Your task to perform on an android device: stop showing notifications on the lock screen Image 0: 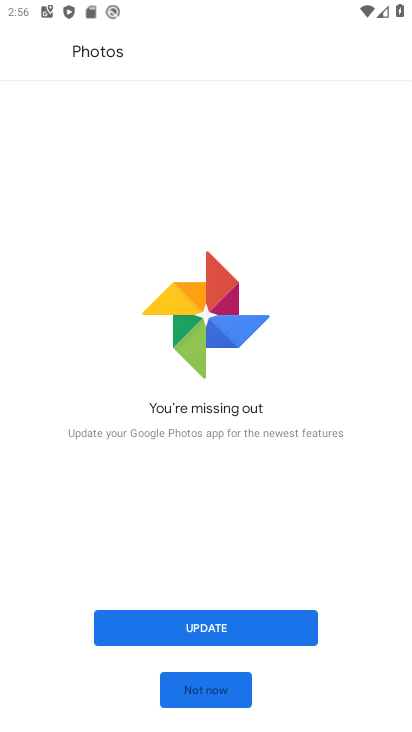
Step 0: press home button
Your task to perform on an android device: stop showing notifications on the lock screen Image 1: 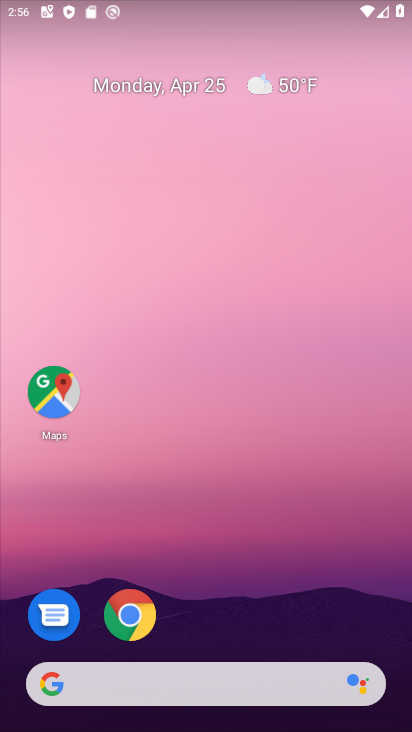
Step 1: drag from (218, 722) to (220, 88)
Your task to perform on an android device: stop showing notifications on the lock screen Image 2: 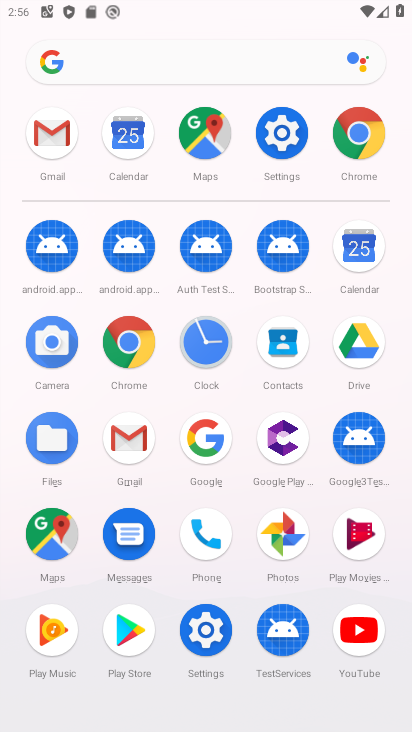
Step 2: click (282, 136)
Your task to perform on an android device: stop showing notifications on the lock screen Image 3: 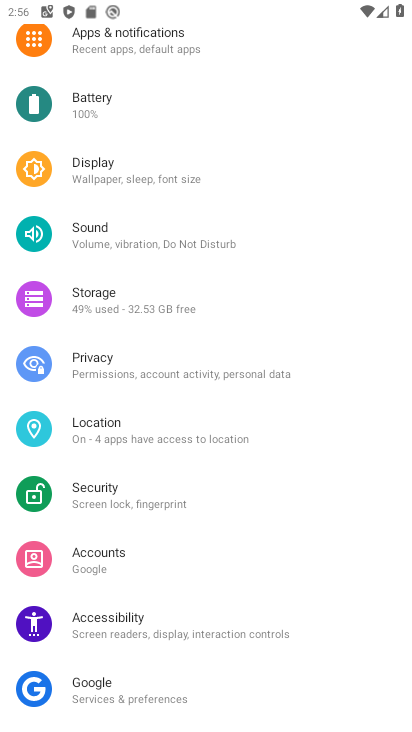
Step 3: click (140, 41)
Your task to perform on an android device: stop showing notifications on the lock screen Image 4: 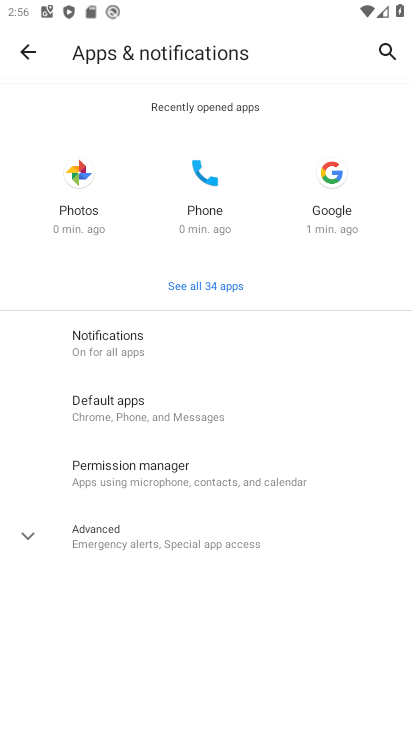
Step 4: click (107, 336)
Your task to perform on an android device: stop showing notifications on the lock screen Image 5: 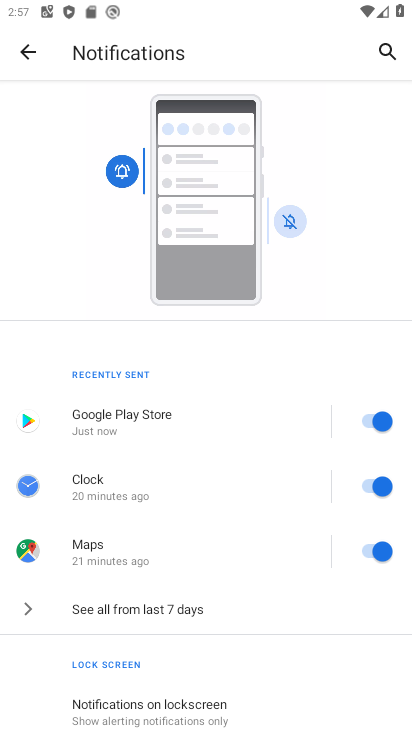
Step 5: click (170, 704)
Your task to perform on an android device: stop showing notifications on the lock screen Image 6: 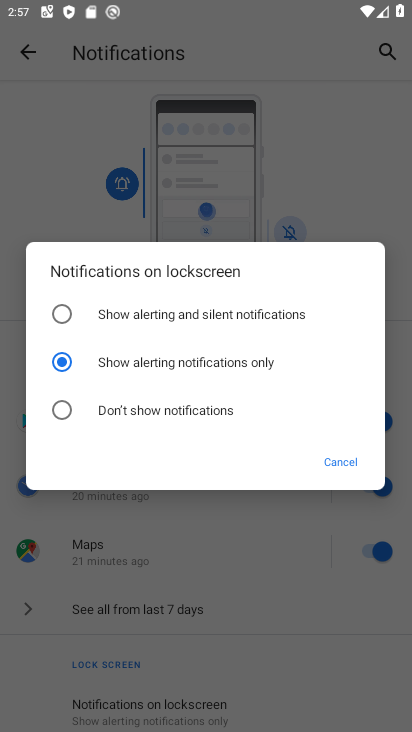
Step 6: click (62, 409)
Your task to perform on an android device: stop showing notifications on the lock screen Image 7: 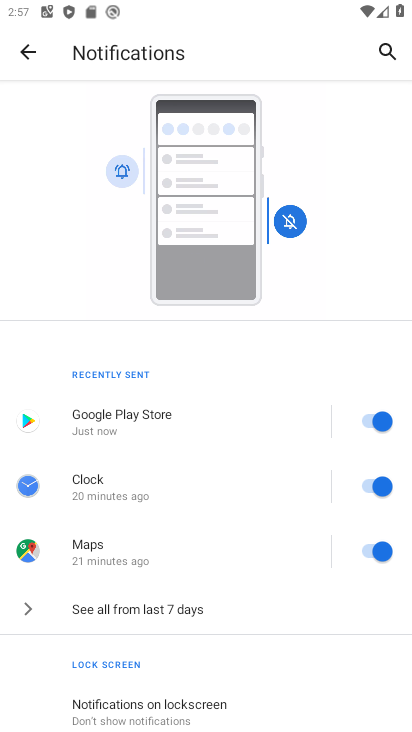
Step 7: task complete